Your task to perform on an android device: Open network settings Image 0: 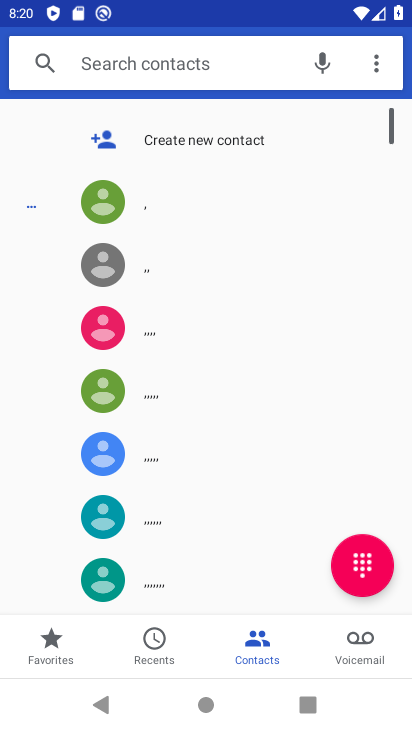
Step 0: press home button
Your task to perform on an android device: Open network settings Image 1: 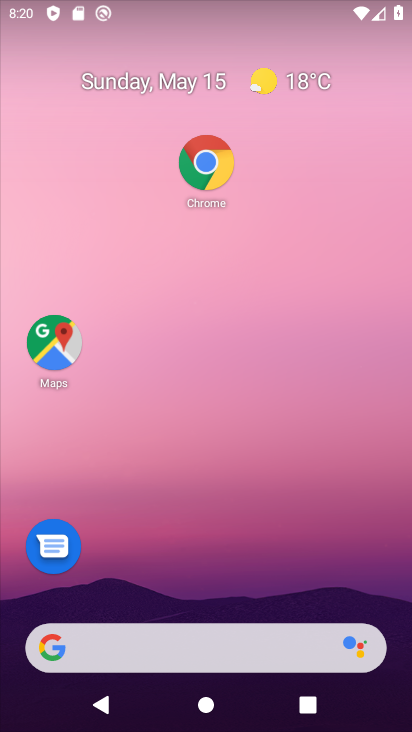
Step 1: drag from (265, 562) to (286, 138)
Your task to perform on an android device: Open network settings Image 2: 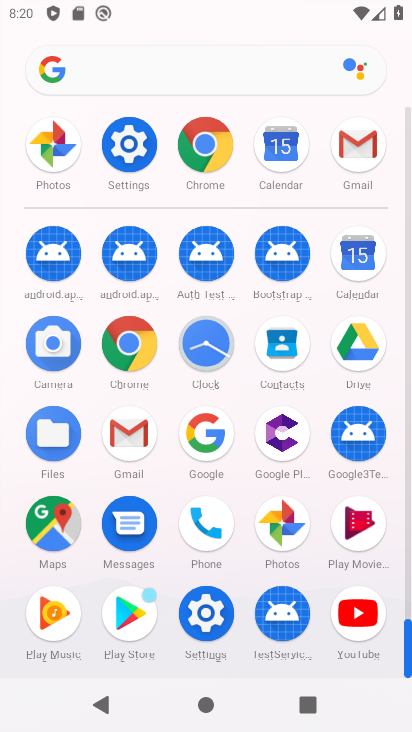
Step 2: click (111, 134)
Your task to perform on an android device: Open network settings Image 3: 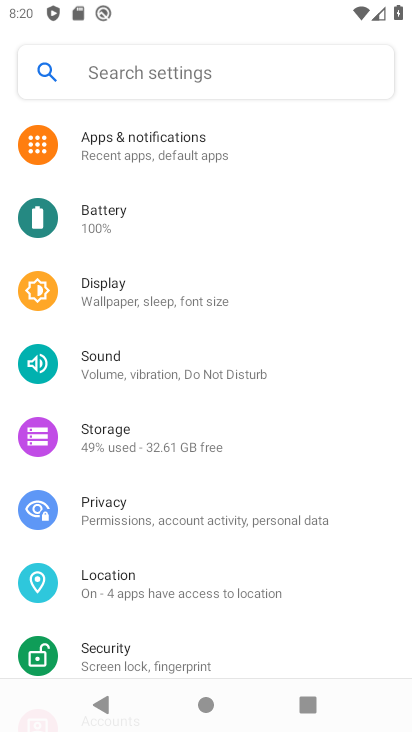
Step 3: drag from (192, 252) to (158, 597)
Your task to perform on an android device: Open network settings Image 4: 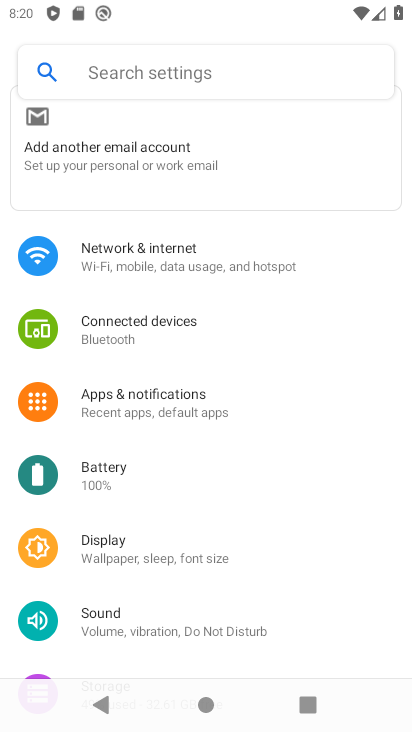
Step 4: click (187, 251)
Your task to perform on an android device: Open network settings Image 5: 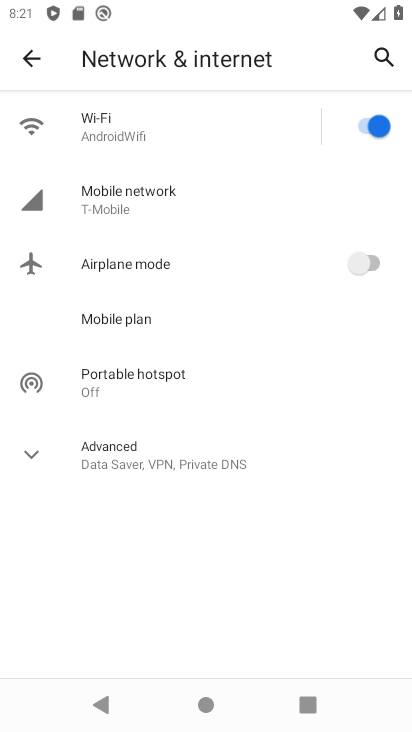
Step 5: task complete